Your task to perform on an android device: open app "Spotify" (install if not already installed) and go to login screen Image 0: 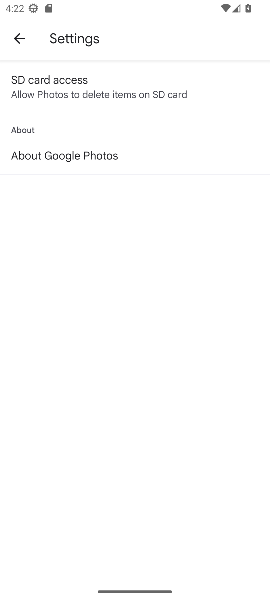
Step 0: press home button
Your task to perform on an android device: open app "Spotify" (install if not already installed) and go to login screen Image 1: 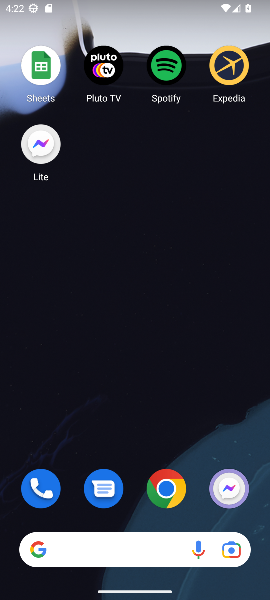
Step 1: drag from (136, 506) to (201, 50)
Your task to perform on an android device: open app "Spotify" (install if not already installed) and go to login screen Image 2: 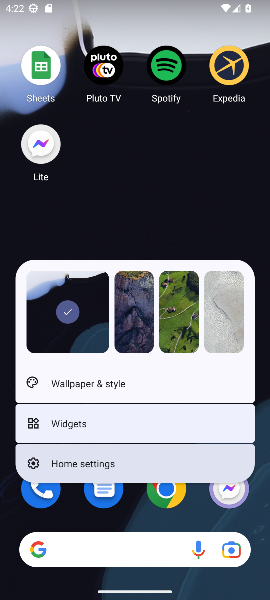
Step 2: click (164, 208)
Your task to perform on an android device: open app "Spotify" (install if not already installed) and go to login screen Image 3: 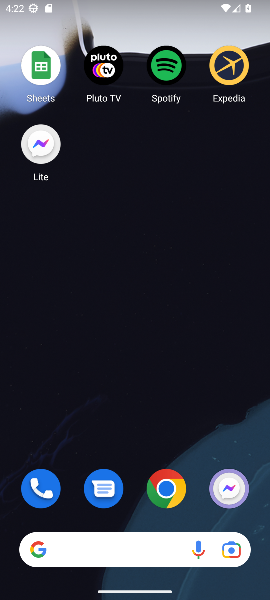
Step 3: drag from (144, 521) to (134, 15)
Your task to perform on an android device: open app "Spotify" (install if not already installed) and go to login screen Image 4: 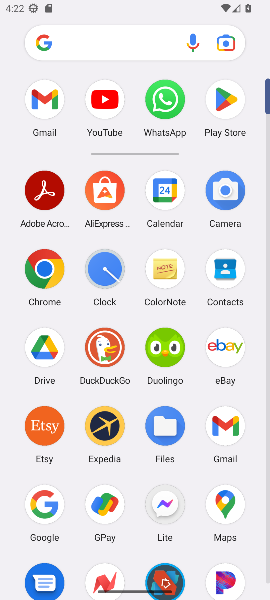
Step 4: click (222, 99)
Your task to perform on an android device: open app "Spotify" (install if not already installed) and go to login screen Image 5: 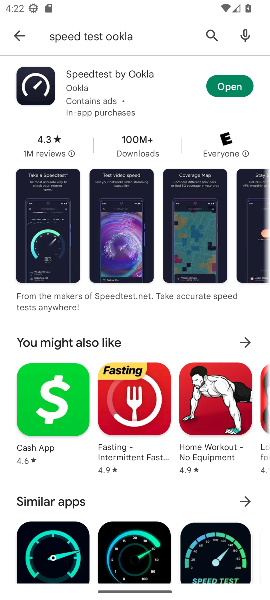
Step 5: click (206, 34)
Your task to perform on an android device: open app "Spotify" (install if not already installed) and go to login screen Image 6: 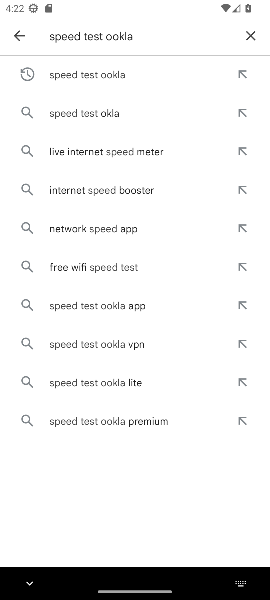
Step 6: click (245, 38)
Your task to perform on an android device: open app "Spotify" (install if not already installed) and go to login screen Image 7: 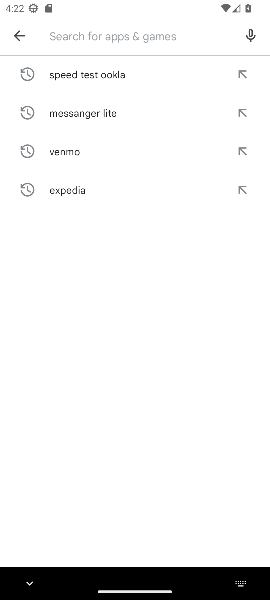
Step 7: type "spotify"
Your task to perform on an android device: open app "Spotify" (install if not already installed) and go to login screen Image 8: 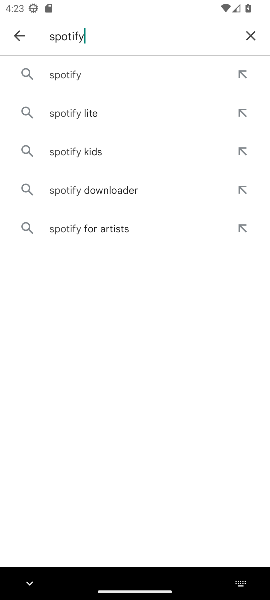
Step 8: click (162, 68)
Your task to perform on an android device: open app "Spotify" (install if not already installed) and go to login screen Image 9: 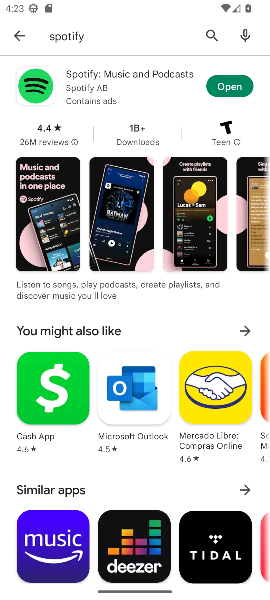
Step 9: click (219, 83)
Your task to perform on an android device: open app "Spotify" (install if not already installed) and go to login screen Image 10: 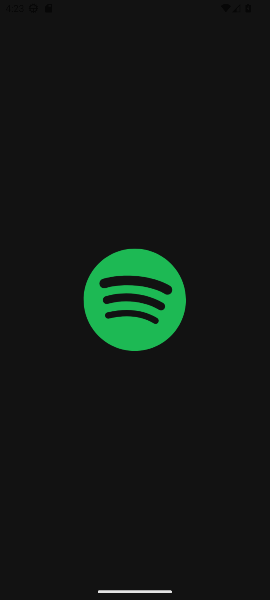
Step 10: task complete